Your task to perform on an android device: Open the stopwatch Image 0: 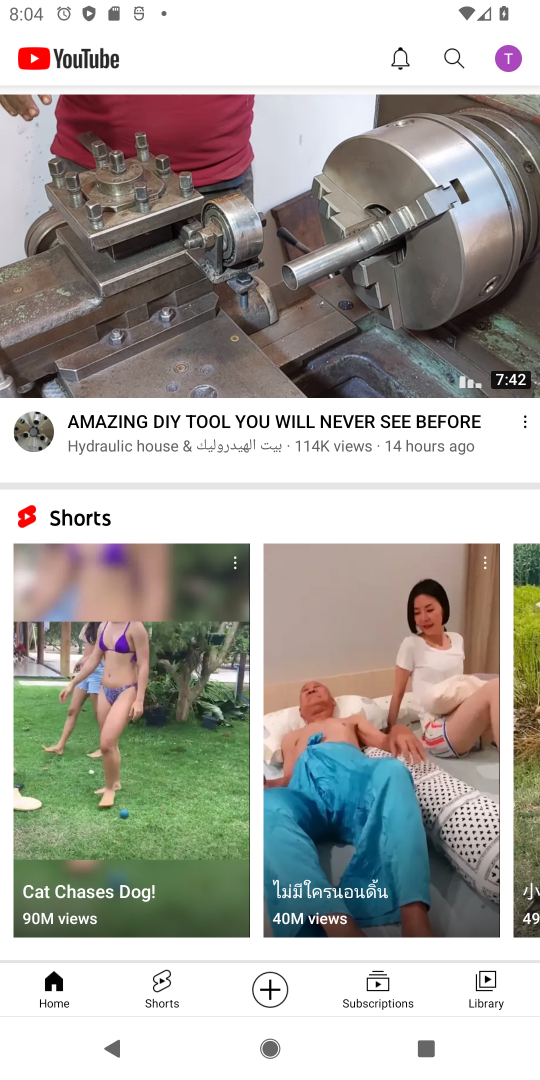
Step 0: press back button
Your task to perform on an android device: Open the stopwatch Image 1: 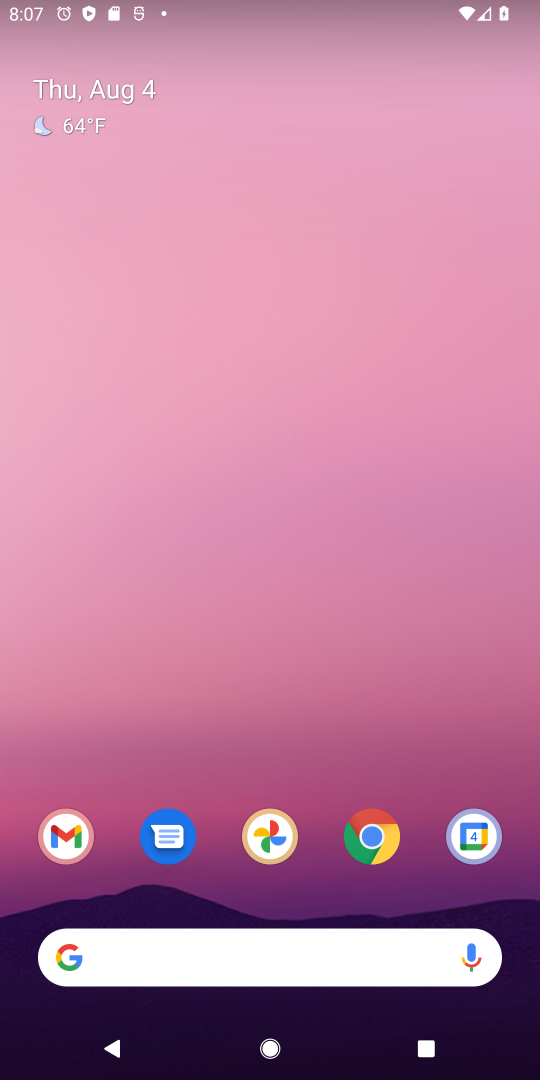
Step 1: drag from (271, 779) to (304, 75)
Your task to perform on an android device: Open the stopwatch Image 2: 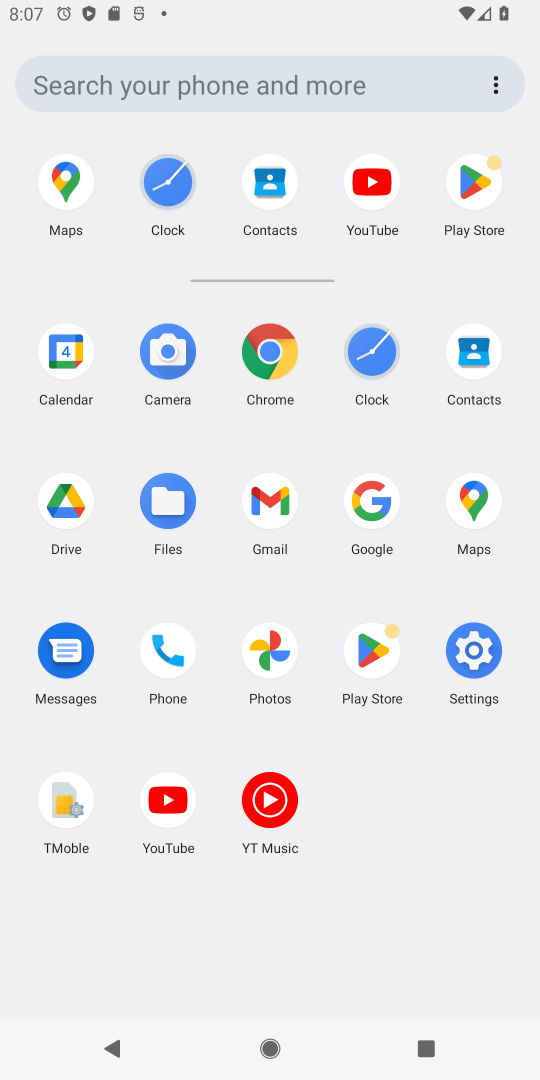
Step 2: click (369, 344)
Your task to perform on an android device: Open the stopwatch Image 3: 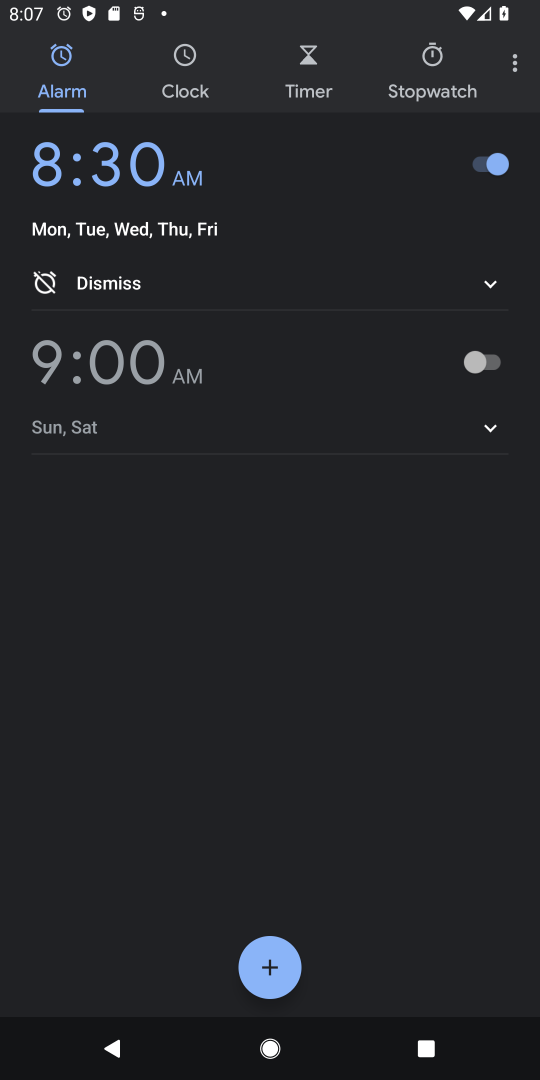
Step 3: click (440, 73)
Your task to perform on an android device: Open the stopwatch Image 4: 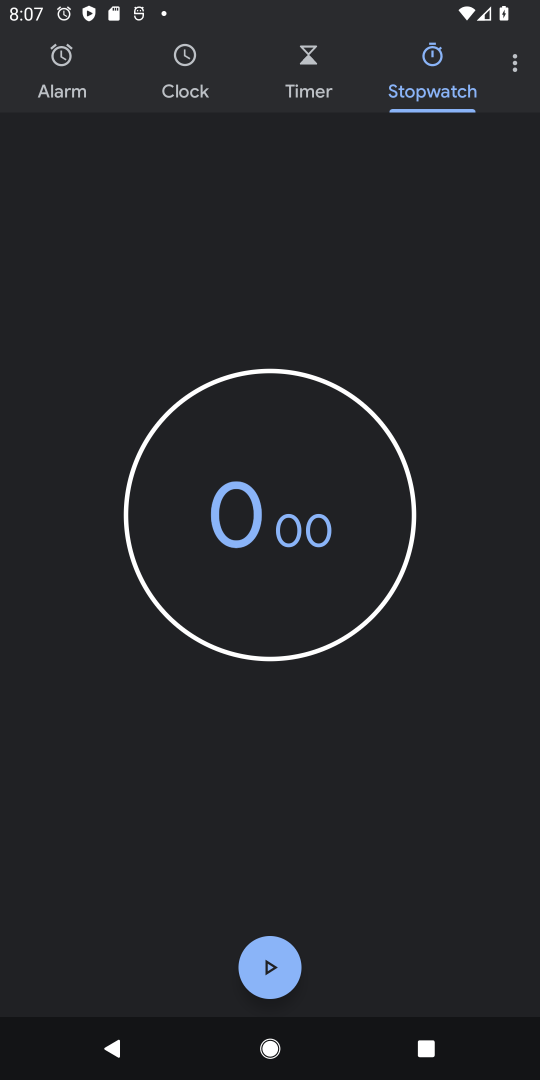
Step 4: task complete